Your task to perform on an android device: toggle priority inbox in the gmail app Image 0: 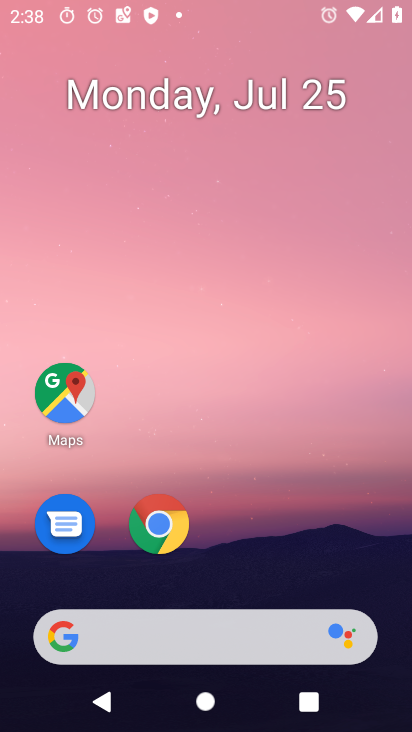
Step 0: press home button
Your task to perform on an android device: toggle priority inbox in the gmail app Image 1: 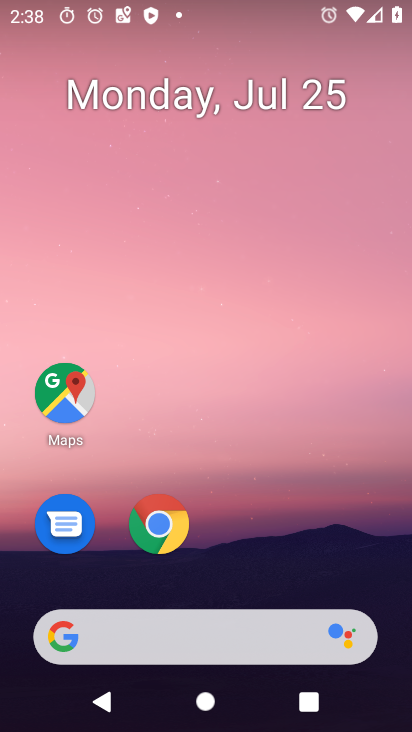
Step 1: drag from (240, 582) to (271, 18)
Your task to perform on an android device: toggle priority inbox in the gmail app Image 2: 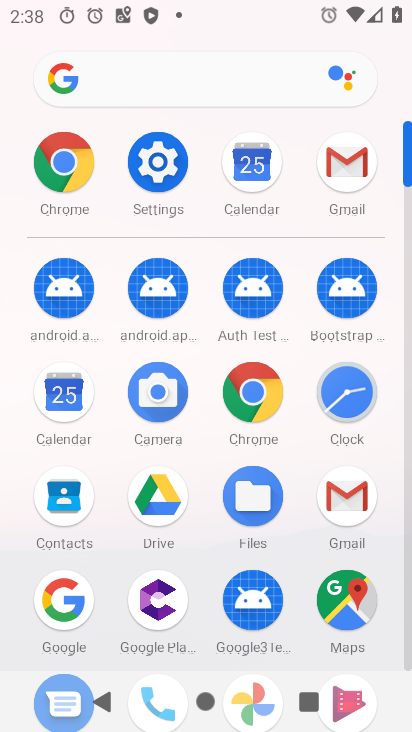
Step 2: click (359, 166)
Your task to perform on an android device: toggle priority inbox in the gmail app Image 3: 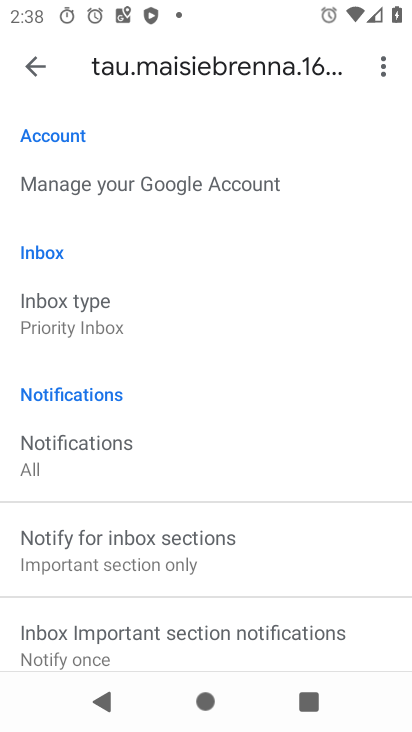
Step 3: click (88, 323)
Your task to perform on an android device: toggle priority inbox in the gmail app Image 4: 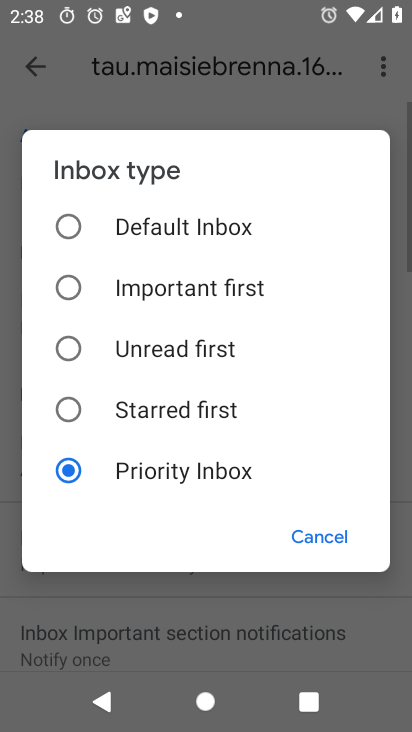
Step 4: click (79, 290)
Your task to perform on an android device: toggle priority inbox in the gmail app Image 5: 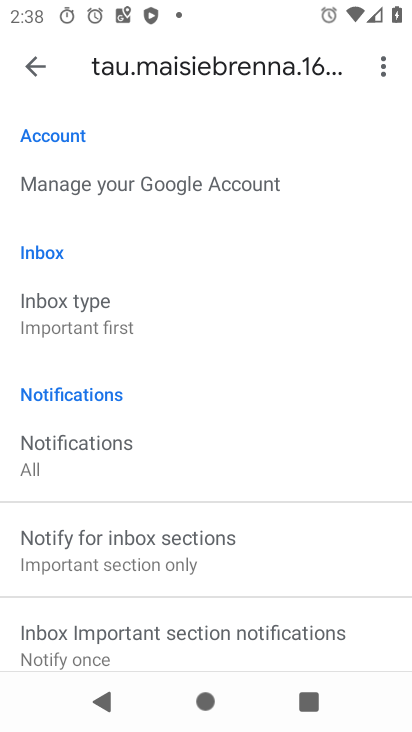
Step 5: task complete